Your task to perform on an android device: open app "Microsoft Outlook" (install if not already installed) Image 0: 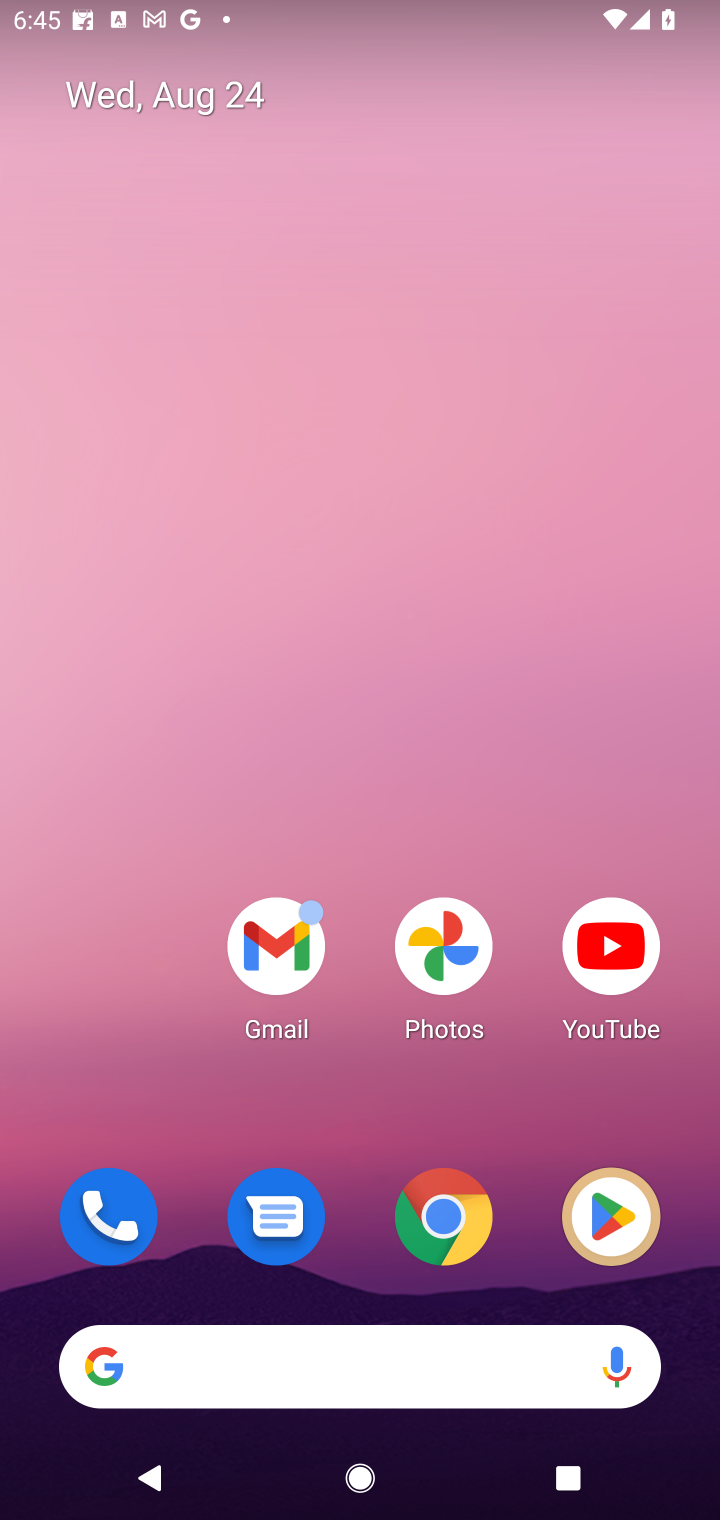
Step 0: press back button
Your task to perform on an android device: open app "Microsoft Outlook" (install if not already installed) Image 1: 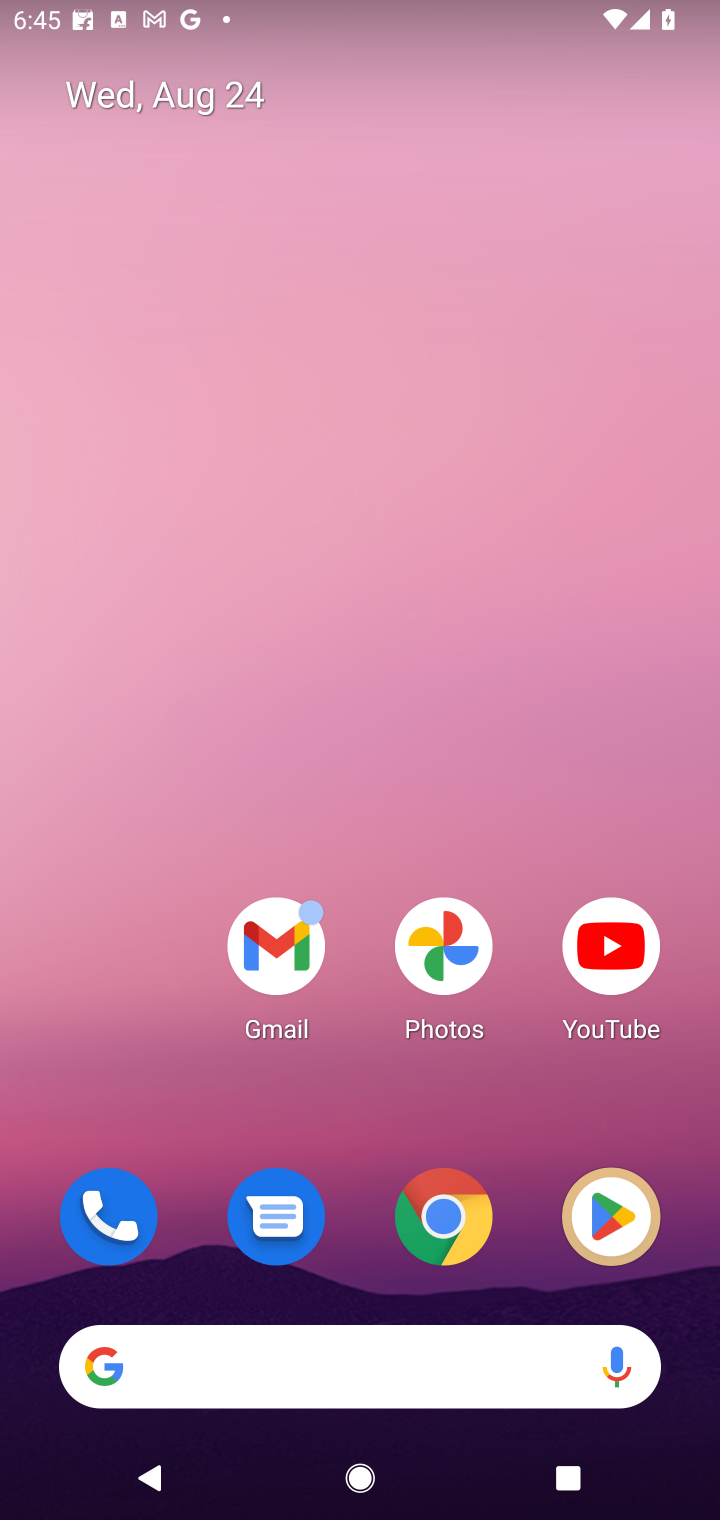
Step 1: click (607, 1212)
Your task to perform on an android device: open app "Microsoft Outlook" (install if not already installed) Image 2: 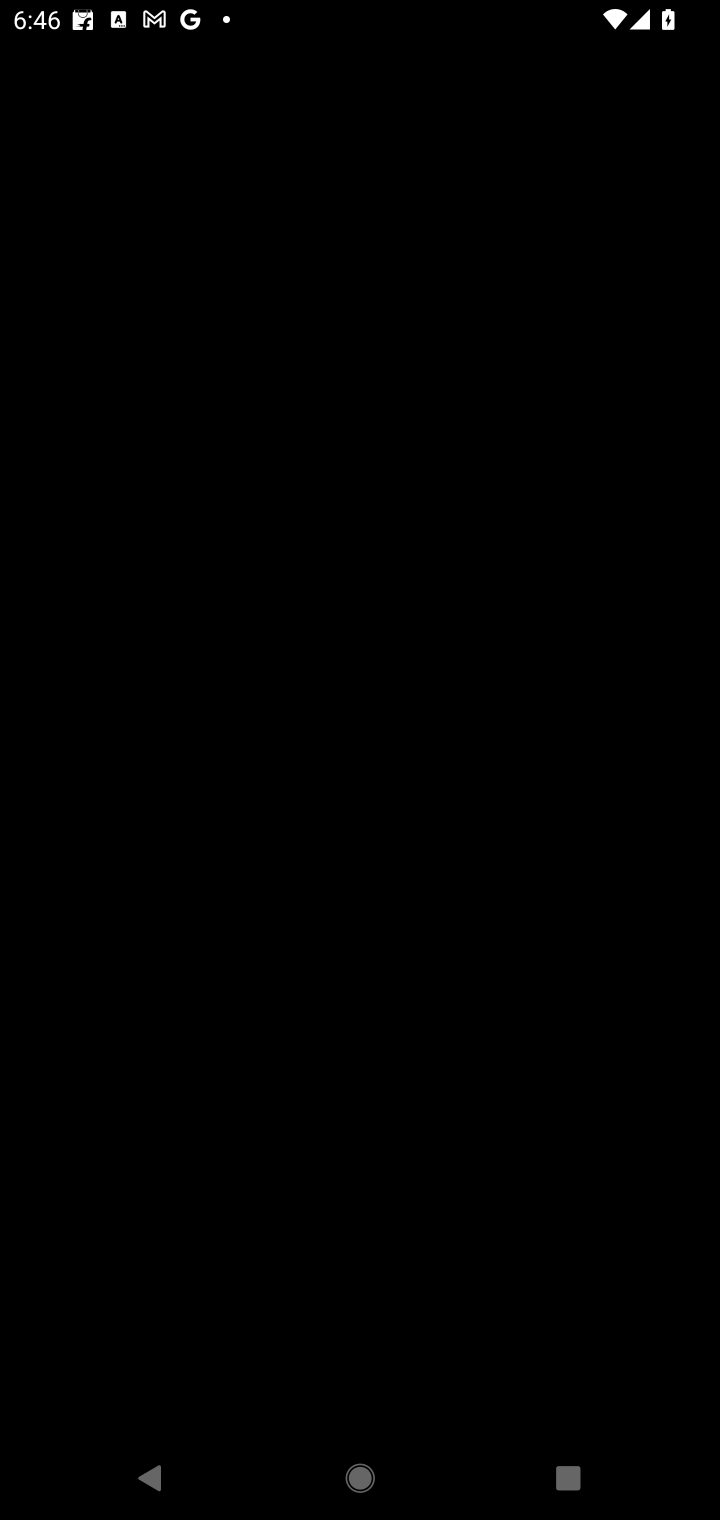
Step 2: press home button
Your task to perform on an android device: open app "Microsoft Outlook" (install if not already installed) Image 3: 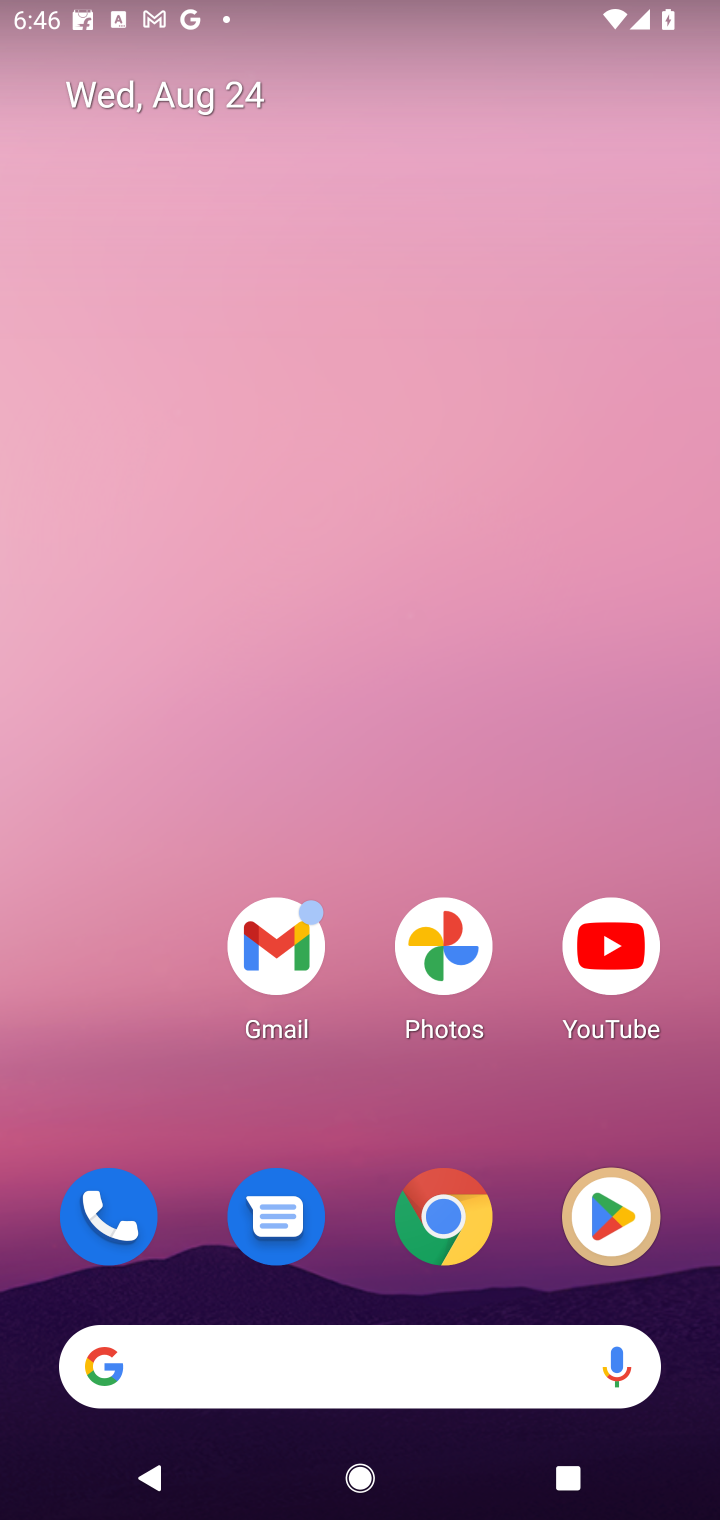
Step 3: click (599, 1228)
Your task to perform on an android device: open app "Microsoft Outlook" (install if not already installed) Image 4: 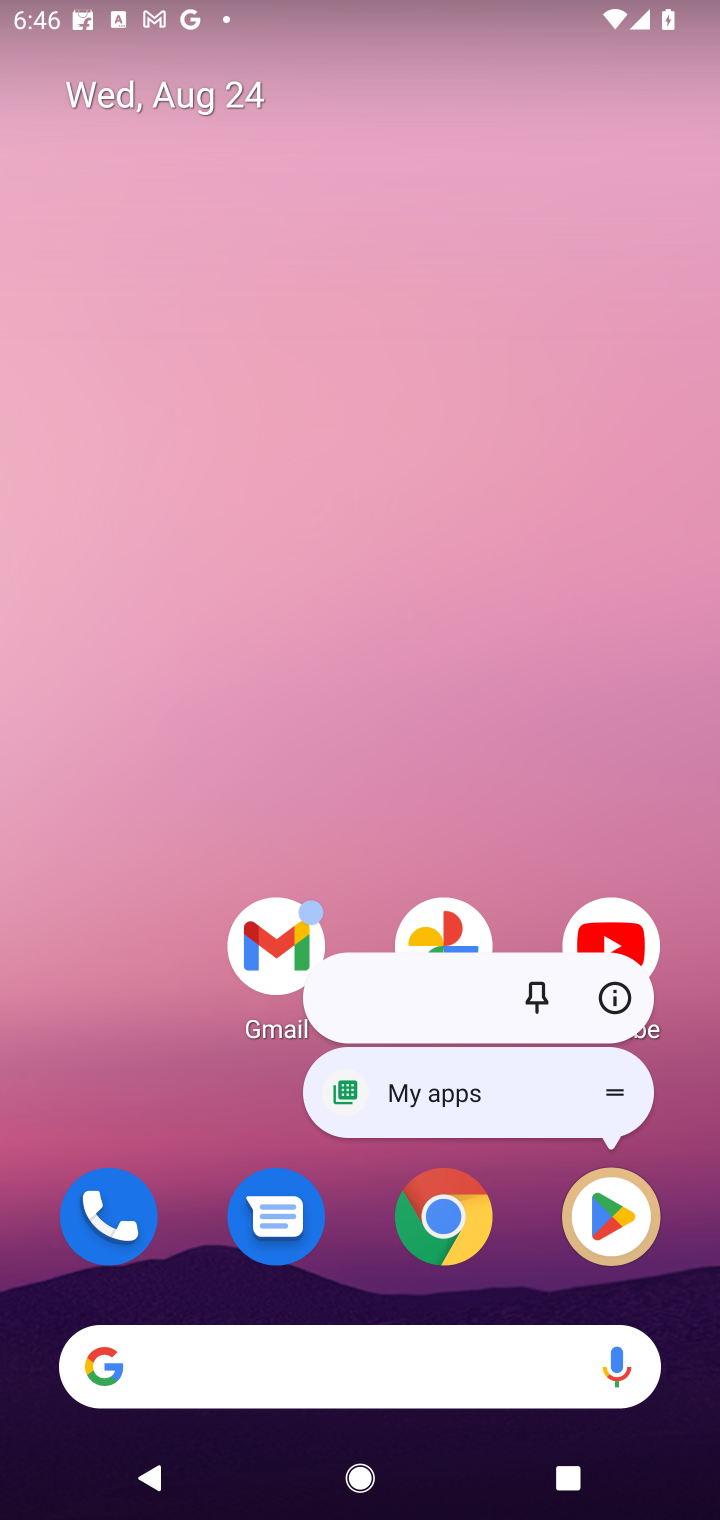
Step 4: click (600, 1204)
Your task to perform on an android device: open app "Microsoft Outlook" (install if not already installed) Image 5: 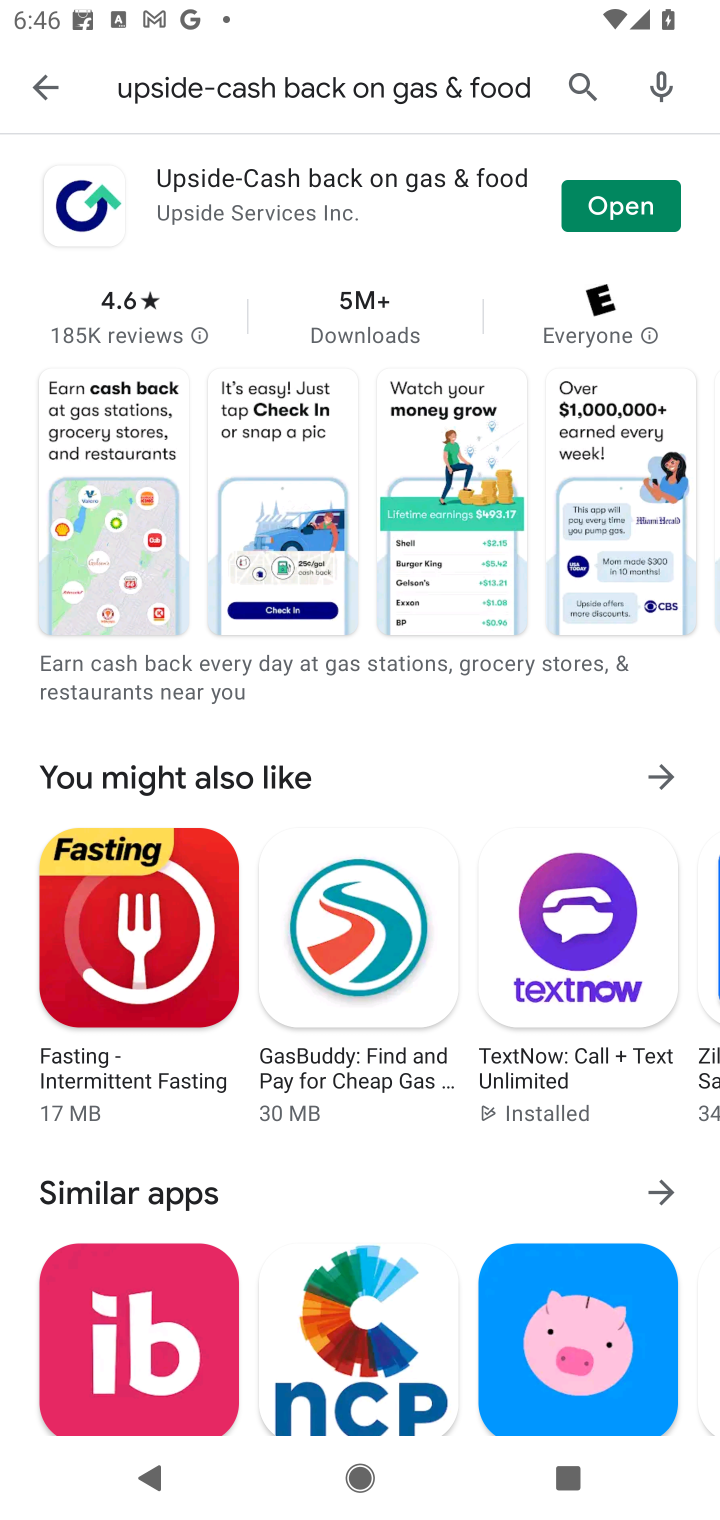
Step 5: click (575, 92)
Your task to perform on an android device: open app "Microsoft Outlook" (install if not already installed) Image 6: 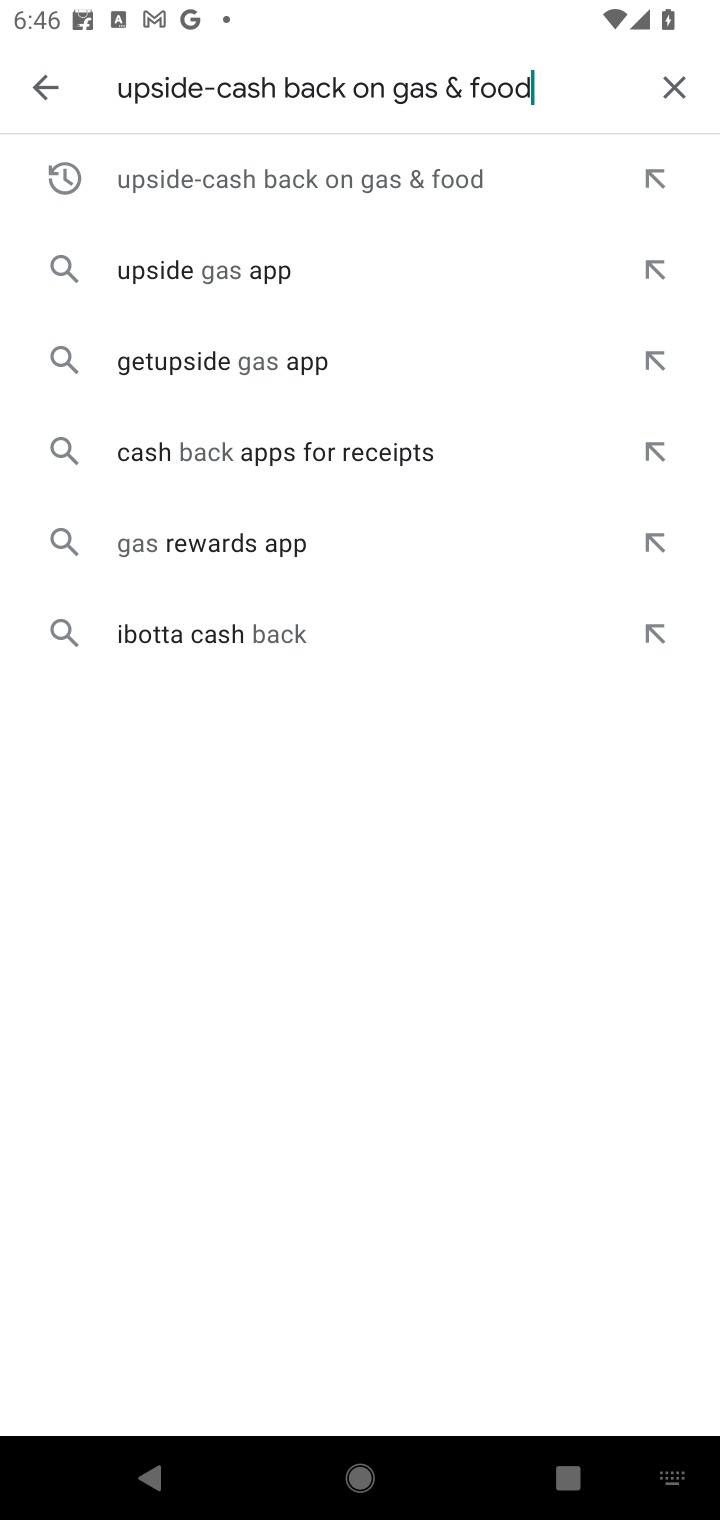
Step 6: click (660, 77)
Your task to perform on an android device: open app "Microsoft Outlook" (install if not already installed) Image 7: 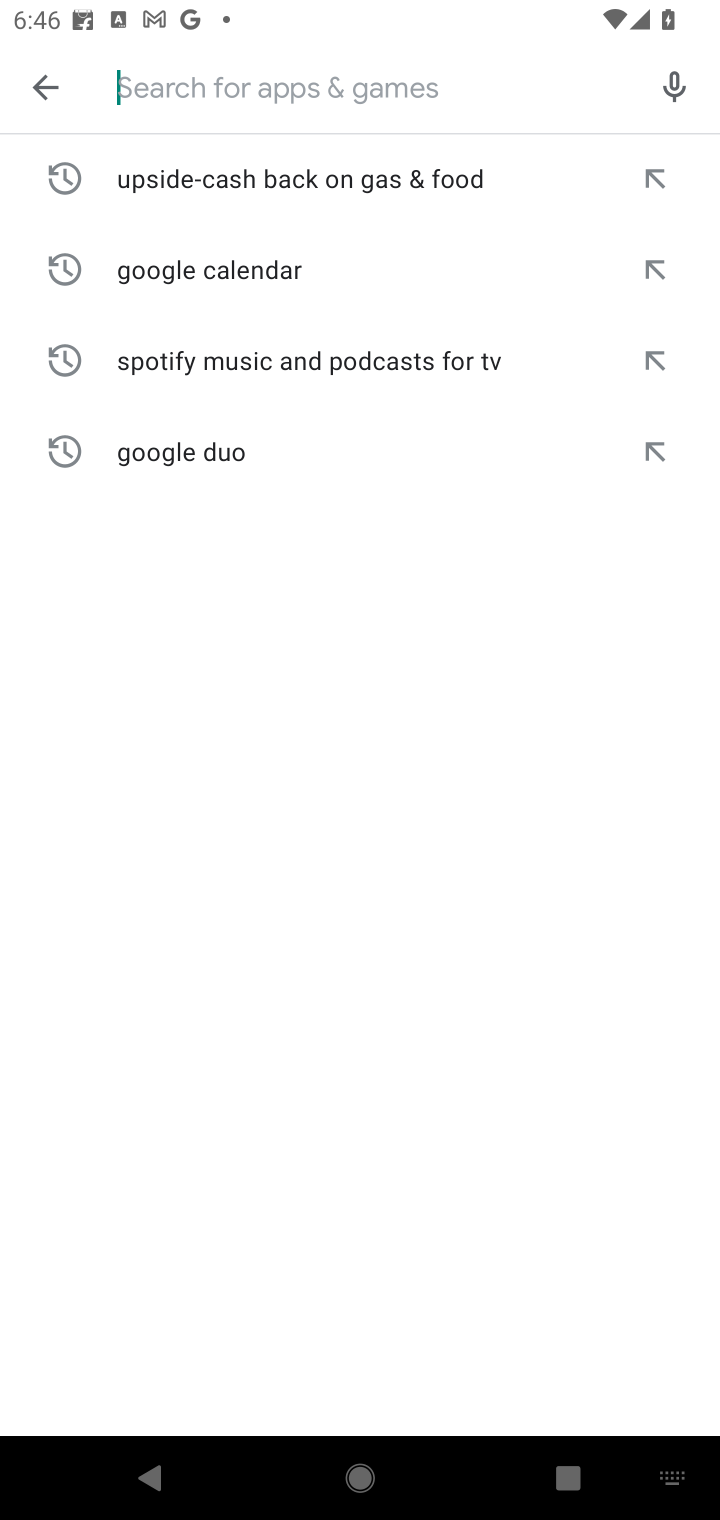
Step 7: type "Microsoft Outlook"
Your task to perform on an android device: open app "Microsoft Outlook" (install if not already installed) Image 8: 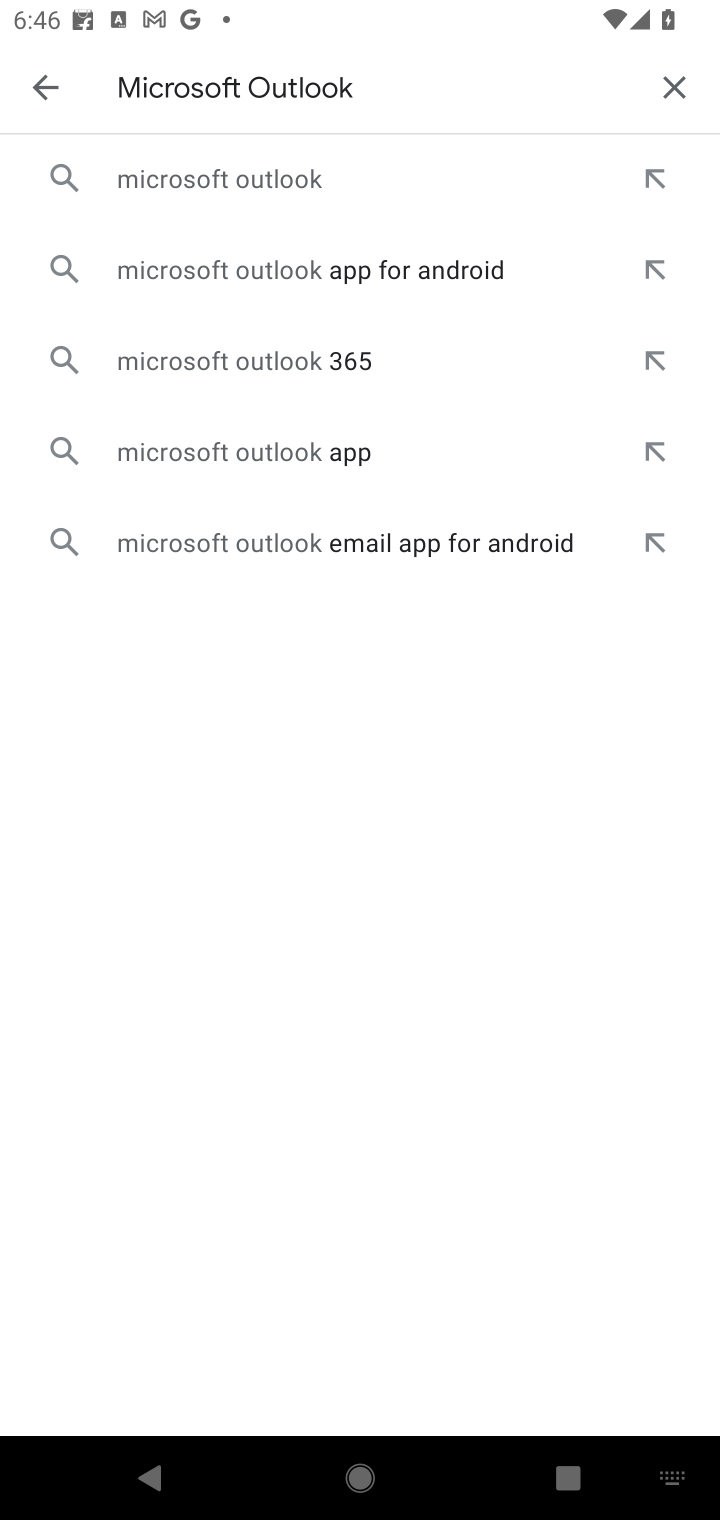
Step 8: click (146, 187)
Your task to perform on an android device: open app "Microsoft Outlook" (install if not already installed) Image 9: 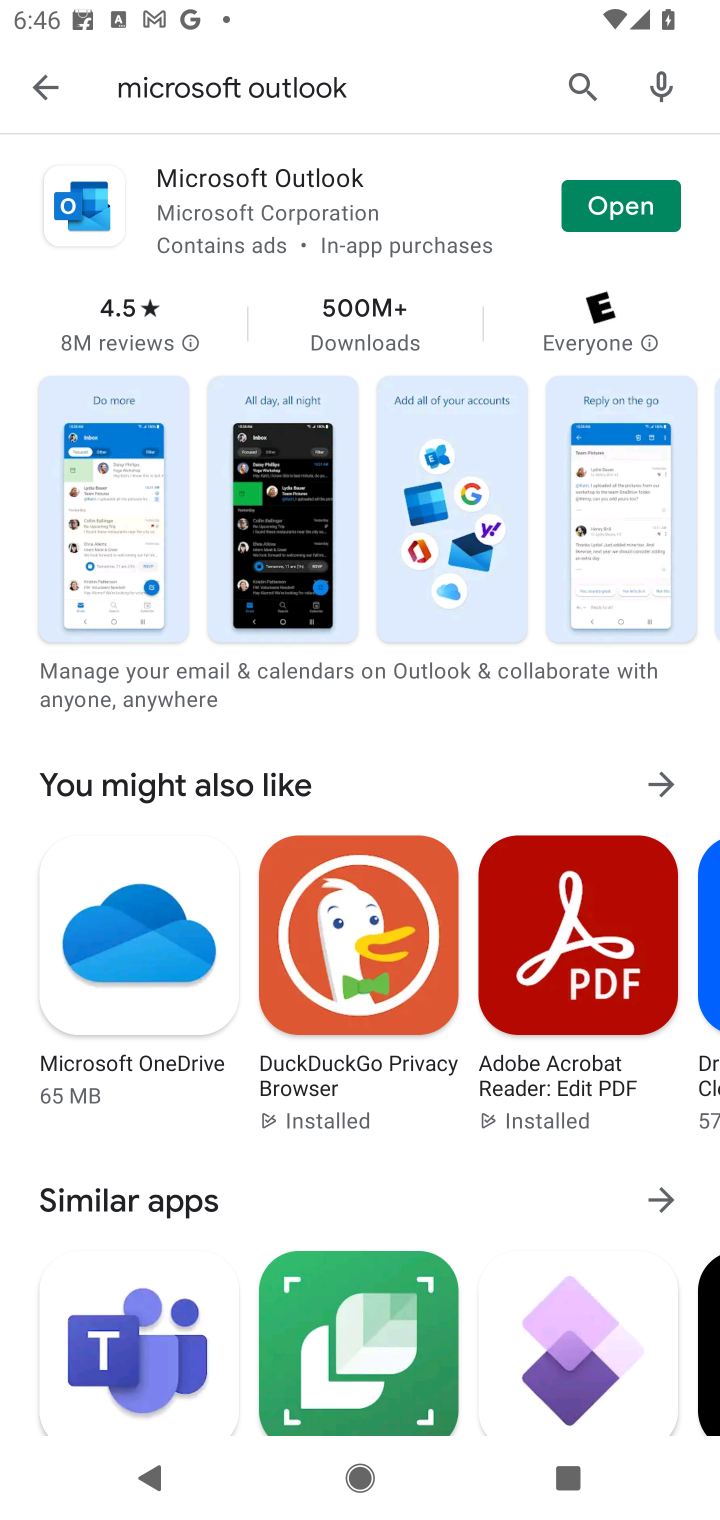
Step 9: click (614, 225)
Your task to perform on an android device: open app "Microsoft Outlook" (install if not already installed) Image 10: 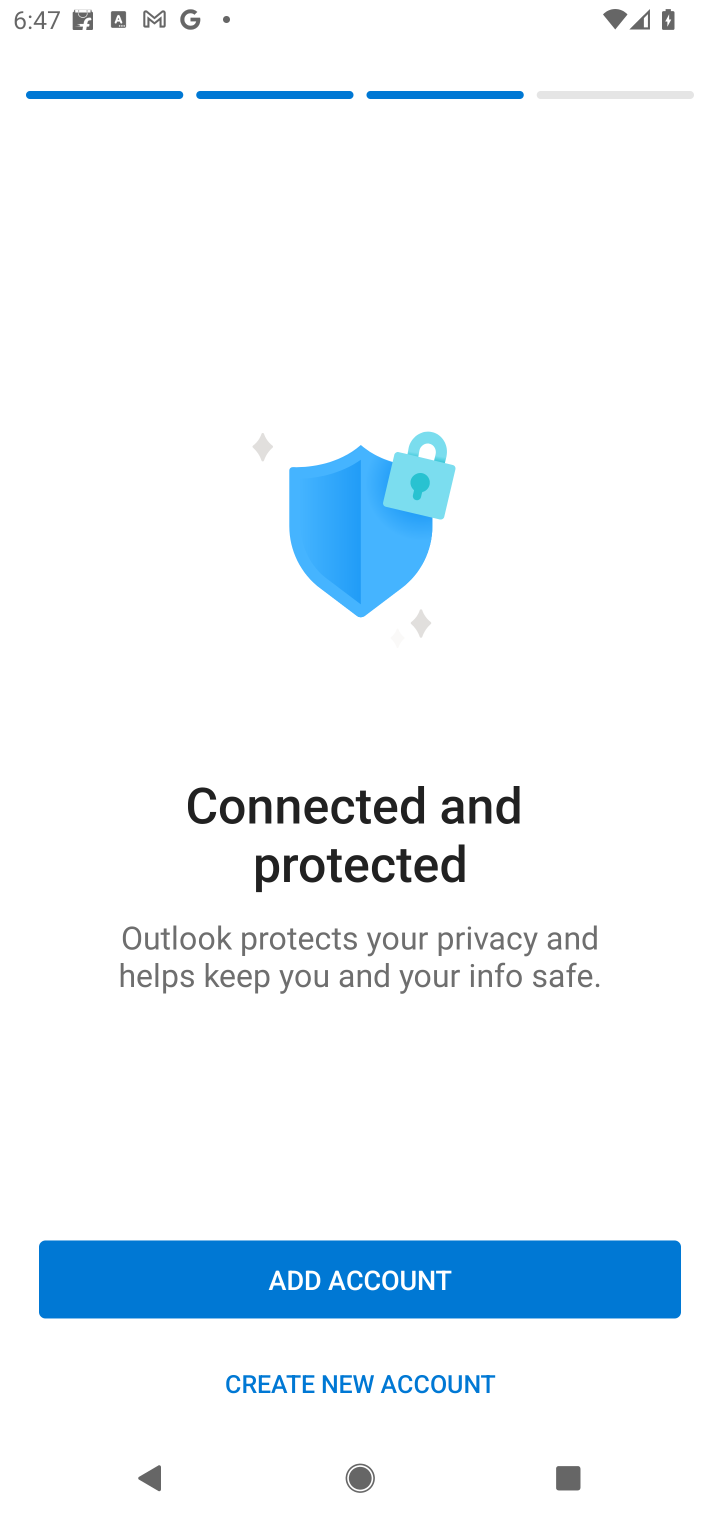
Step 10: task complete